Your task to perform on an android device: Go to location settings Image 0: 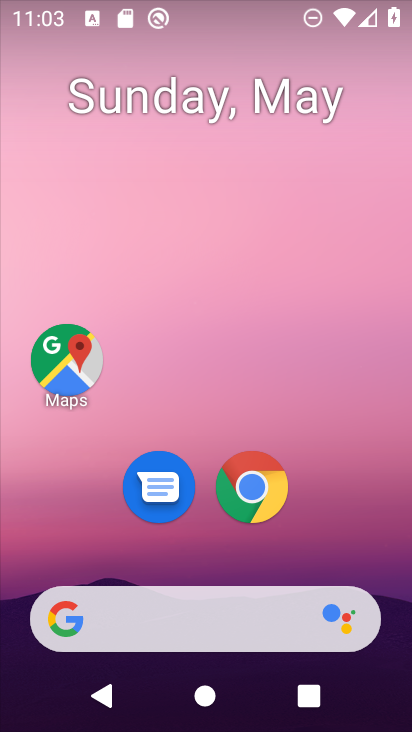
Step 0: drag from (266, 510) to (387, 74)
Your task to perform on an android device: Go to location settings Image 1: 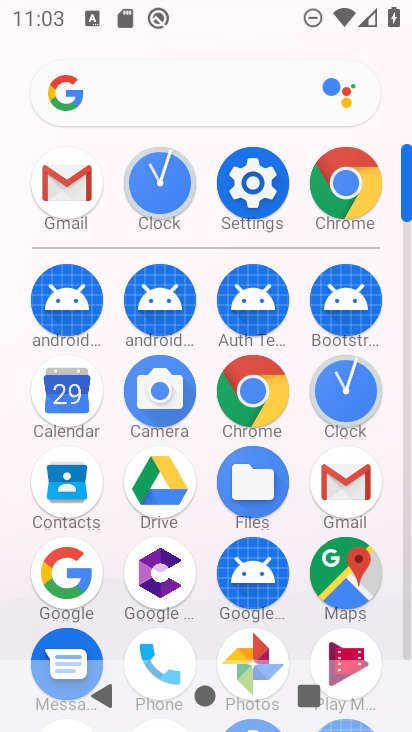
Step 1: click (243, 208)
Your task to perform on an android device: Go to location settings Image 2: 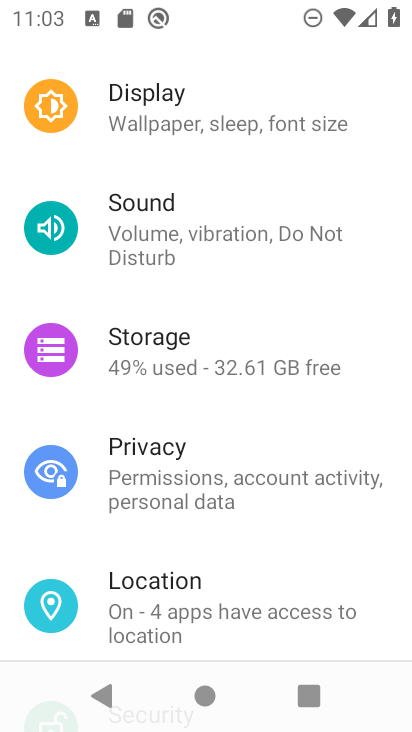
Step 2: click (191, 592)
Your task to perform on an android device: Go to location settings Image 3: 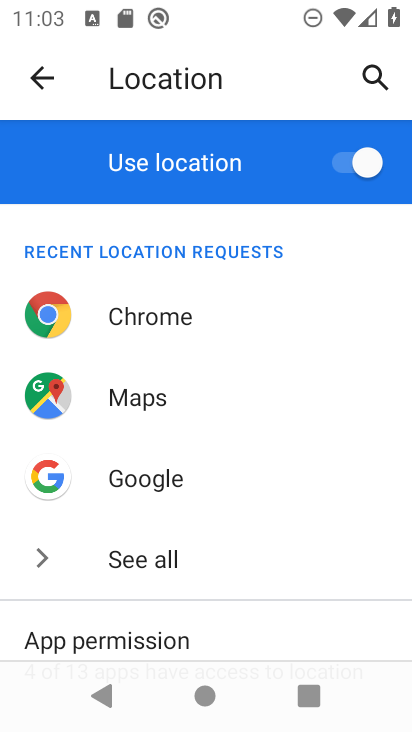
Step 3: task complete